Your task to perform on an android device: Open Google Maps and go to "Timeline" Image 0: 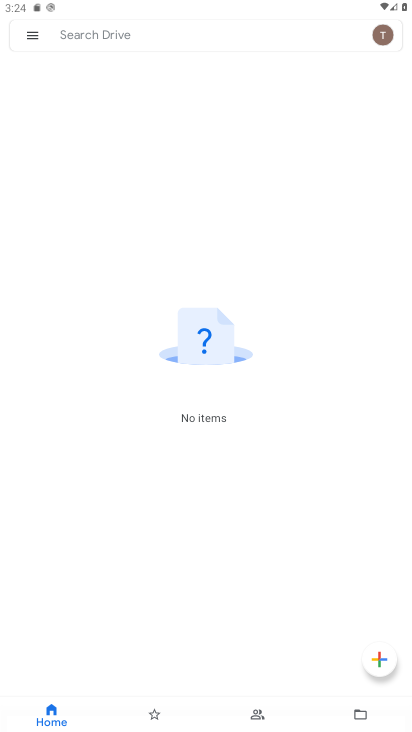
Step 0: press home button
Your task to perform on an android device: Open Google Maps and go to "Timeline" Image 1: 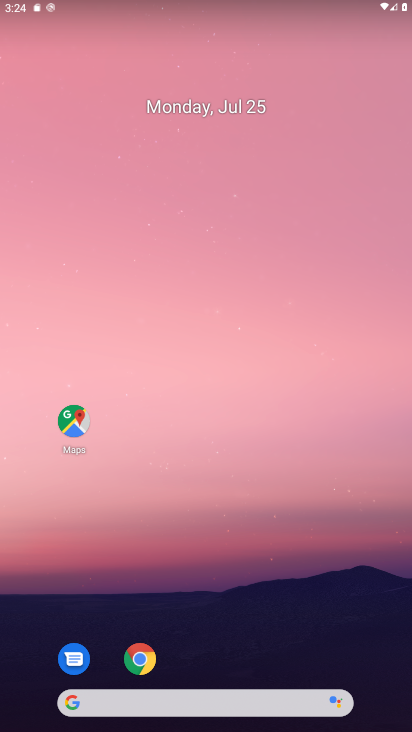
Step 1: click (68, 438)
Your task to perform on an android device: Open Google Maps and go to "Timeline" Image 2: 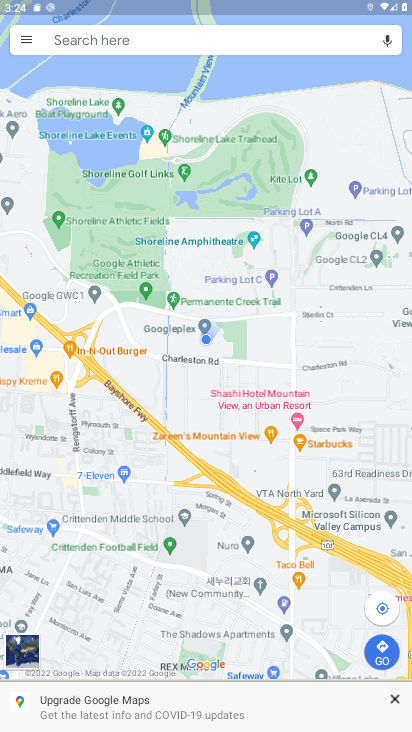
Step 2: click (31, 41)
Your task to perform on an android device: Open Google Maps and go to "Timeline" Image 3: 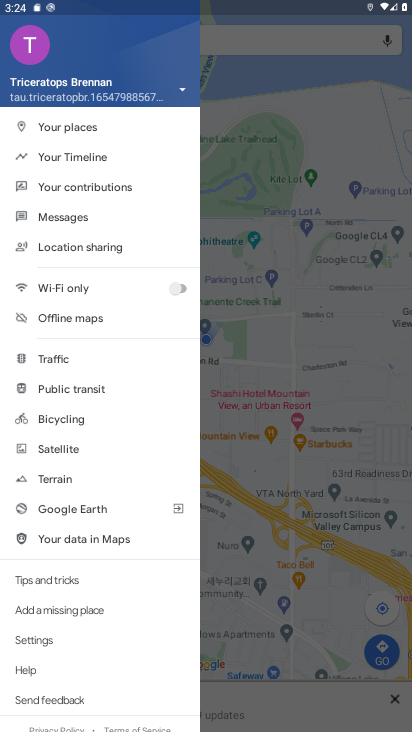
Step 3: click (74, 153)
Your task to perform on an android device: Open Google Maps and go to "Timeline" Image 4: 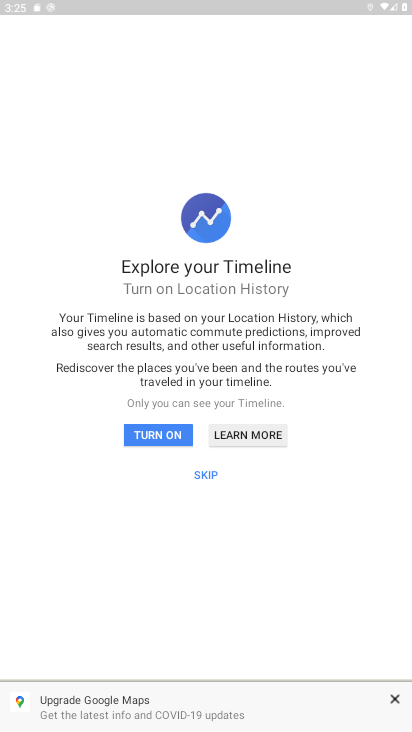
Step 4: click (148, 440)
Your task to perform on an android device: Open Google Maps and go to "Timeline" Image 5: 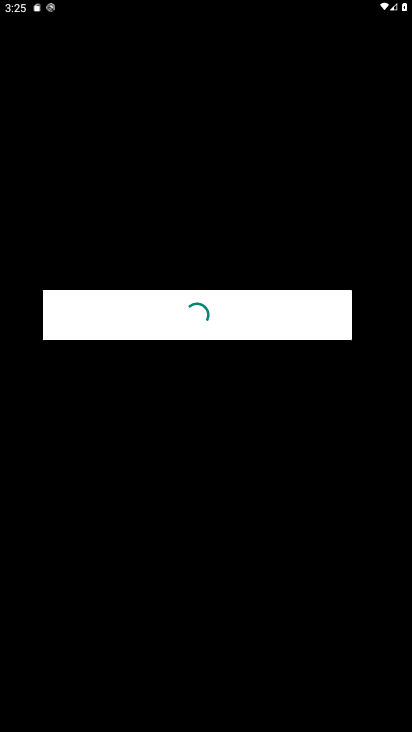
Step 5: task complete